Your task to perform on an android device: turn on bluetooth scan Image 0: 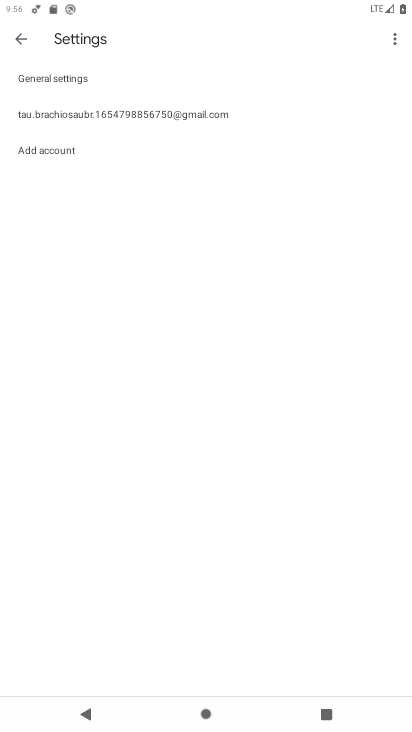
Step 0: press home button
Your task to perform on an android device: turn on bluetooth scan Image 1: 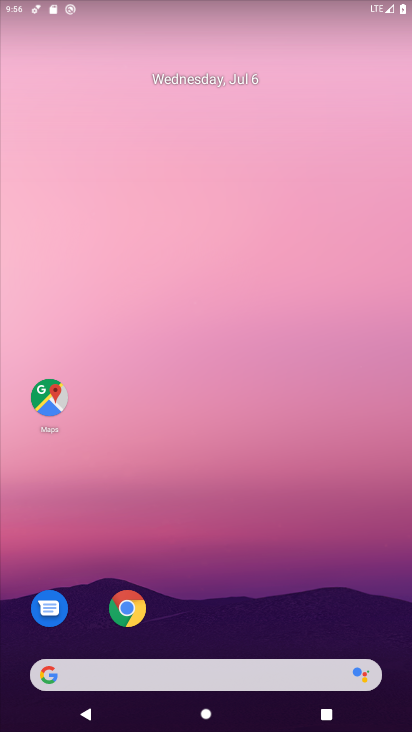
Step 1: drag from (224, 608) to (287, 3)
Your task to perform on an android device: turn on bluetooth scan Image 2: 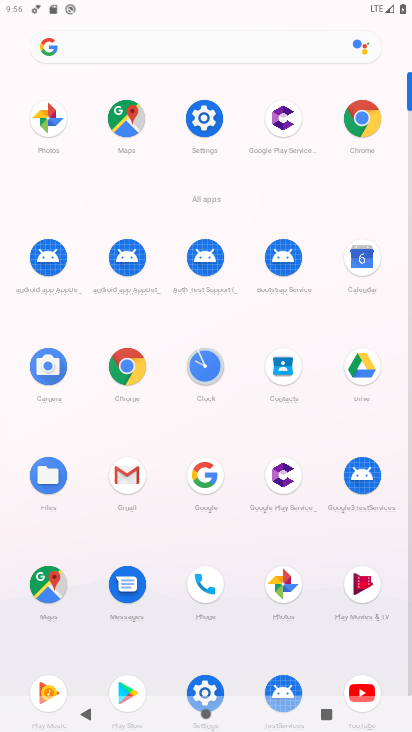
Step 2: click (203, 123)
Your task to perform on an android device: turn on bluetooth scan Image 3: 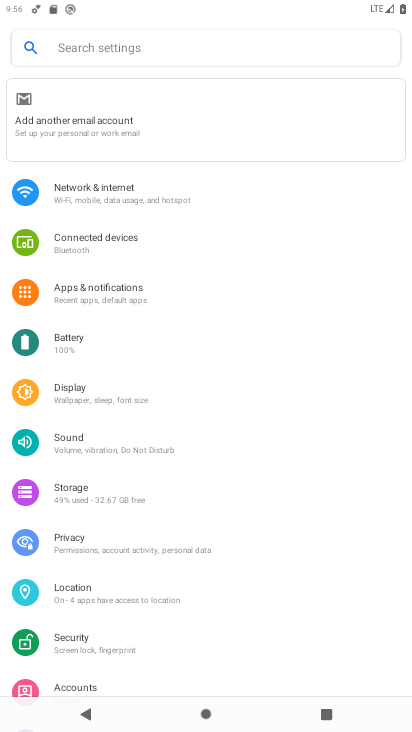
Step 3: click (104, 606)
Your task to perform on an android device: turn on bluetooth scan Image 4: 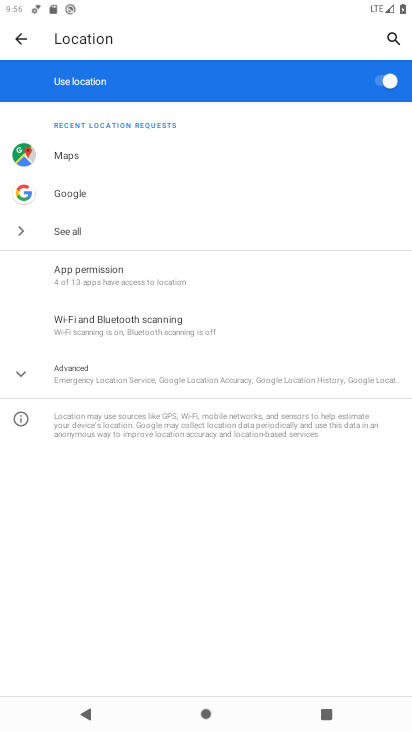
Step 4: click (115, 323)
Your task to perform on an android device: turn on bluetooth scan Image 5: 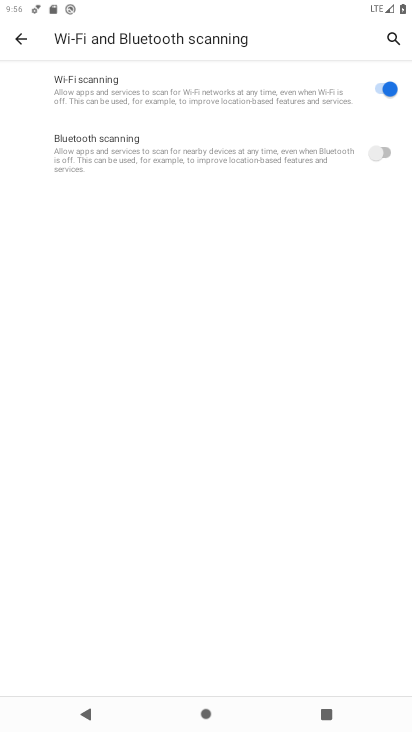
Step 5: click (389, 145)
Your task to perform on an android device: turn on bluetooth scan Image 6: 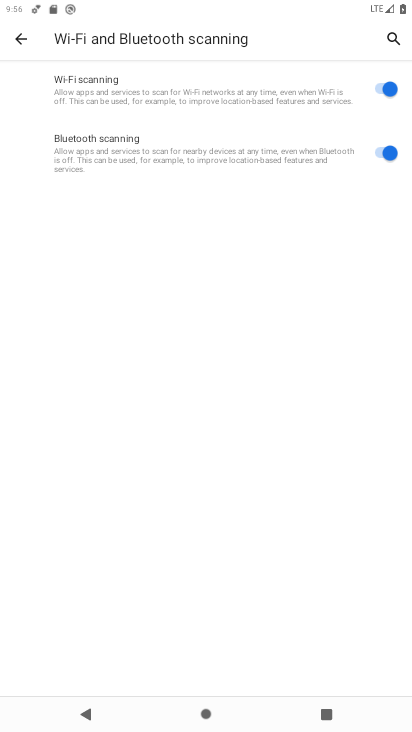
Step 6: task complete